Your task to perform on an android device: snooze an email in the gmail app Image 0: 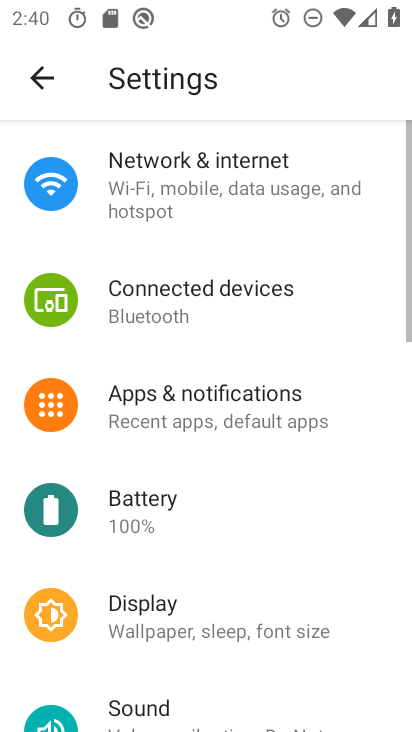
Step 0: press home button
Your task to perform on an android device: snooze an email in the gmail app Image 1: 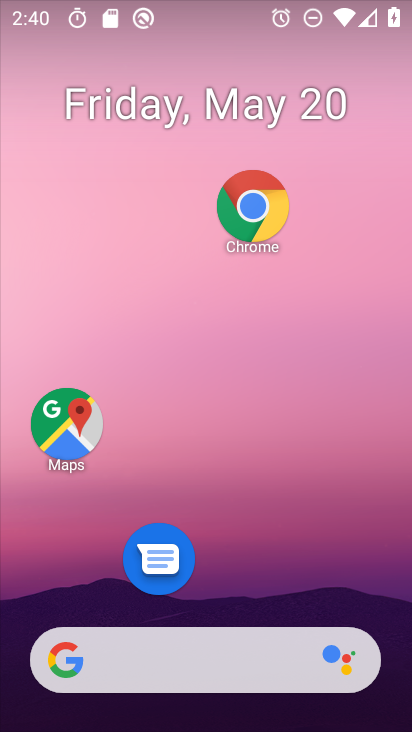
Step 1: drag from (213, 601) to (161, 145)
Your task to perform on an android device: snooze an email in the gmail app Image 2: 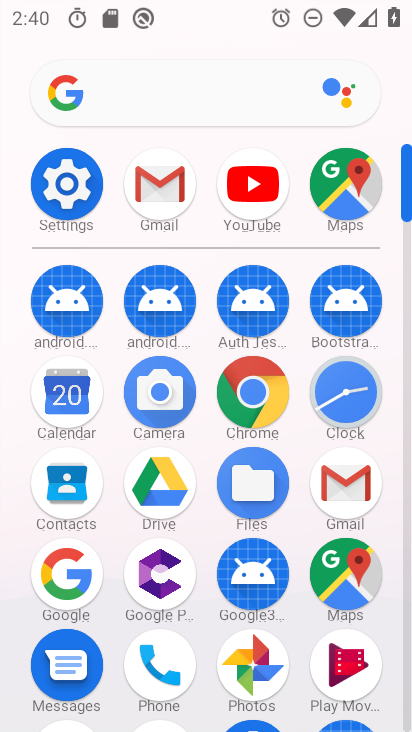
Step 2: click (330, 488)
Your task to perform on an android device: snooze an email in the gmail app Image 3: 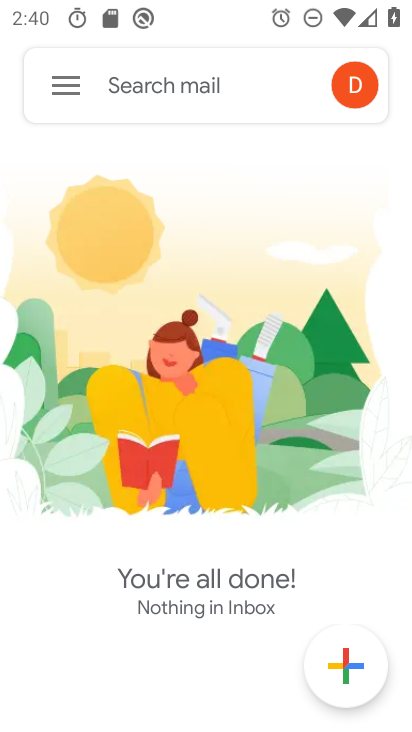
Step 3: task complete